Your task to perform on an android device: turn off airplane mode Image 0: 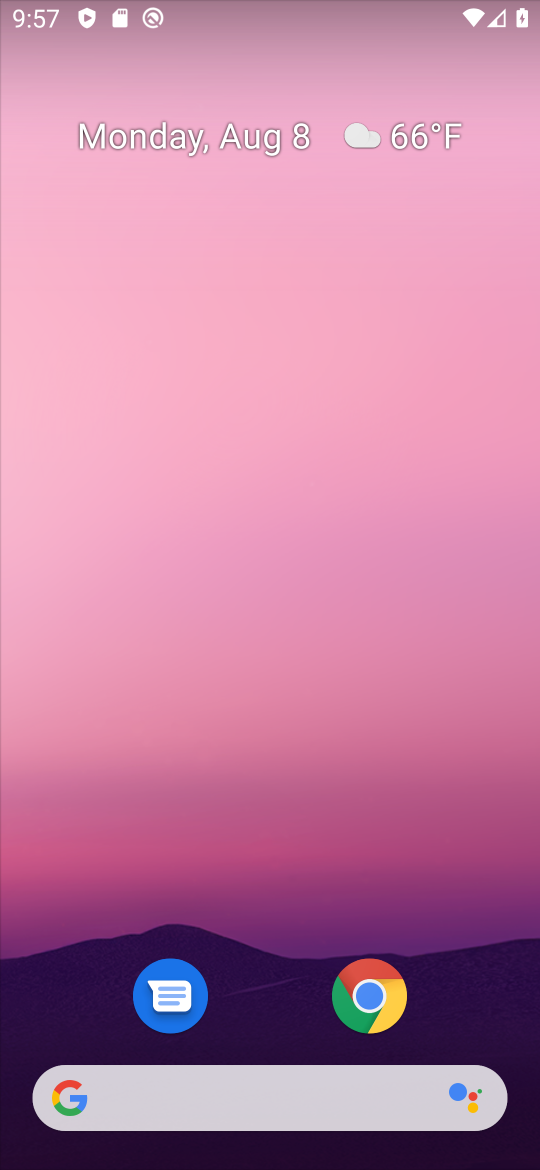
Step 0: drag from (231, 1034) to (218, 210)
Your task to perform on an android device: turn off airplane mode Image 1: 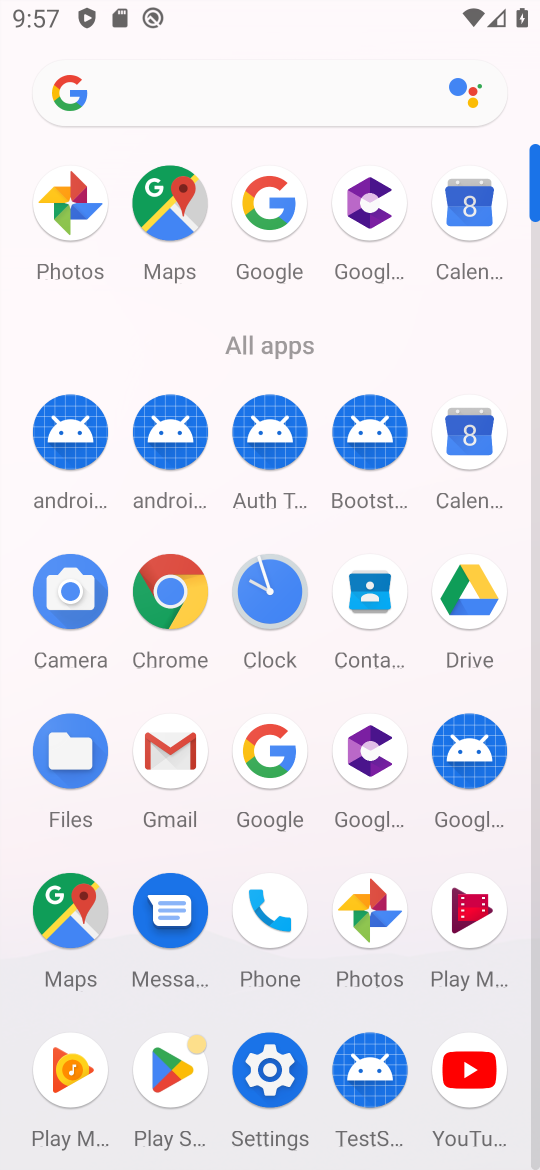
Step 1: click (256, 1068)
Your task to perform on an android device: turn off airplane mode Image 2: 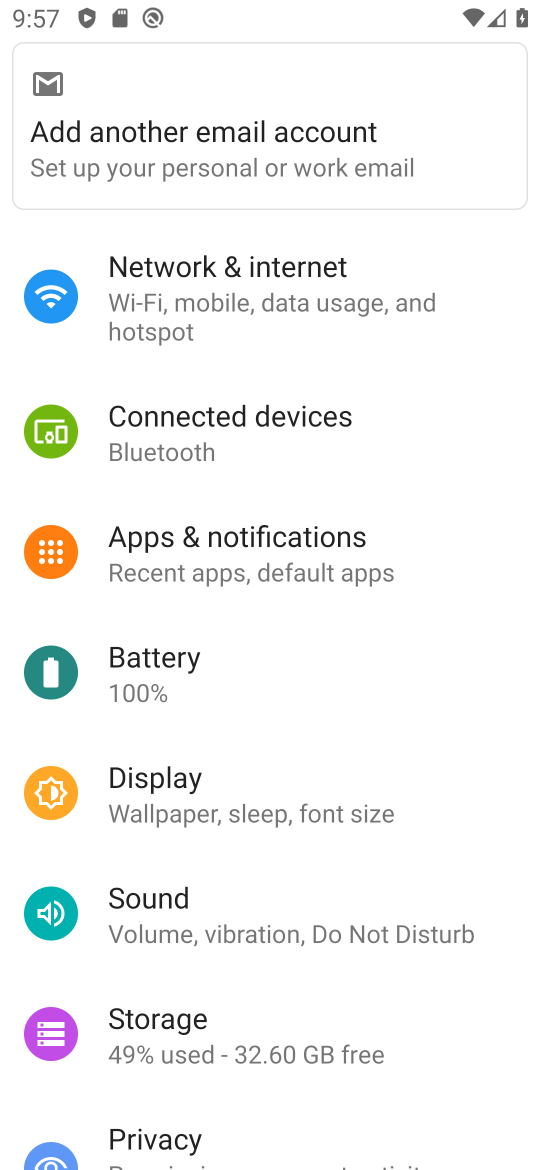
Step 2: click (197, 302)
Your task to perform on an android device: turn off airplane mode Image 3: 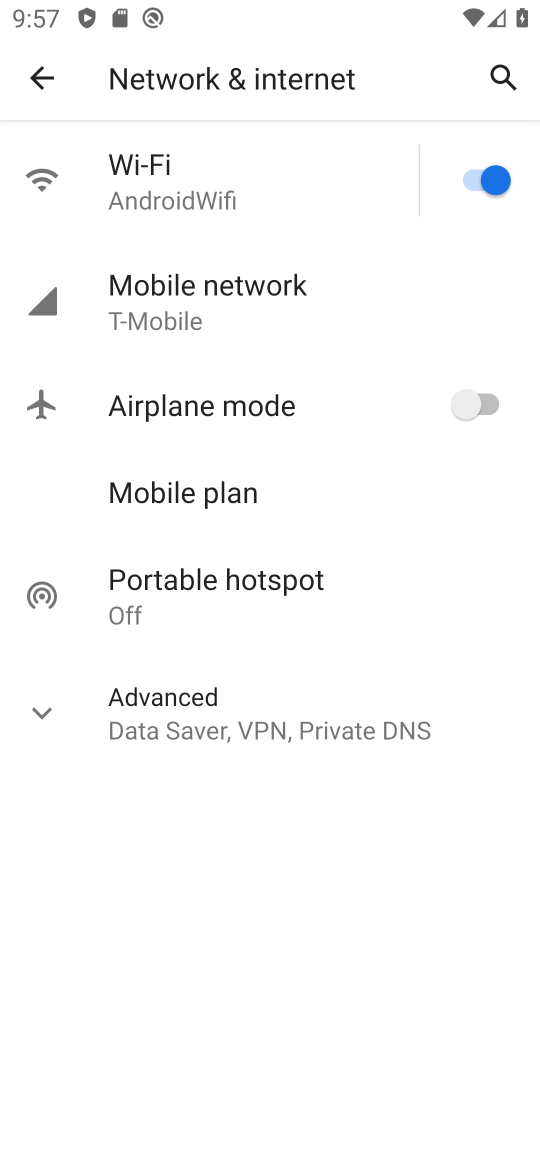
Step 3: task complete